Your task to perform on an android device: What's the weather going to be tomorrow? Image 0: 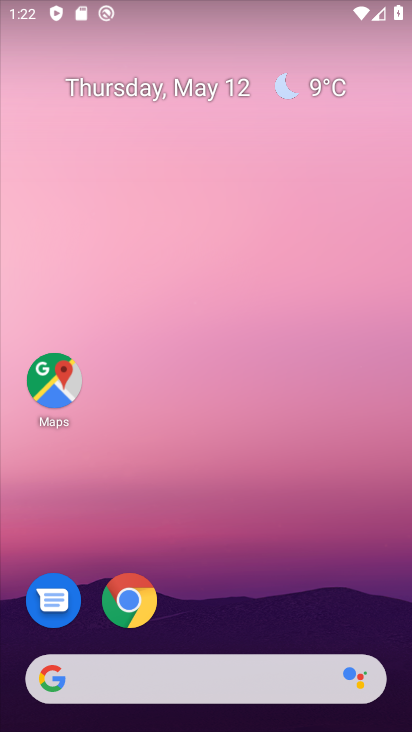
Step 0: click (118, 608)
Your task to perform on an android device: What's the weather going to be tomorrow? Image 1: 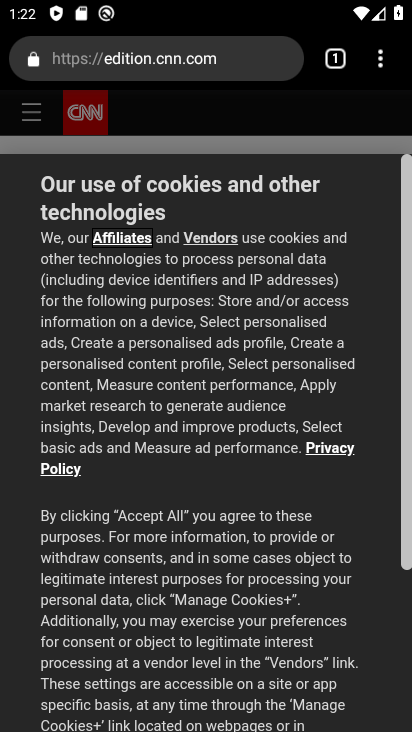
Step 1: click (234, 58)
Your task to perform on an android device: What's the weather going to be tomorrow? Image 2: 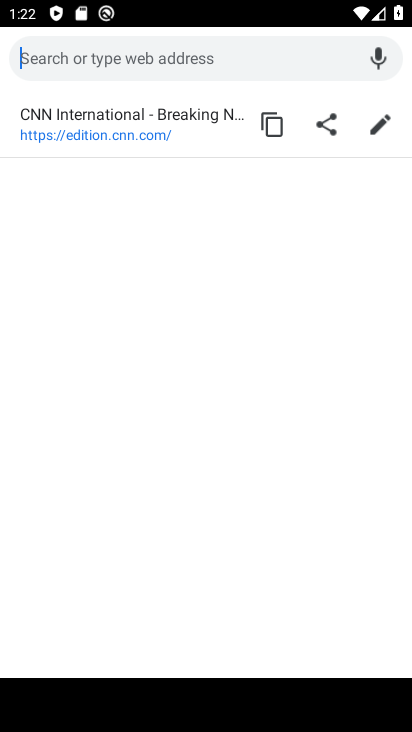
Step 2: type "What's the weather going to be tomorrow?"
Your task to perform on an android device: What's the weather going to be tomorrow? Image 3: 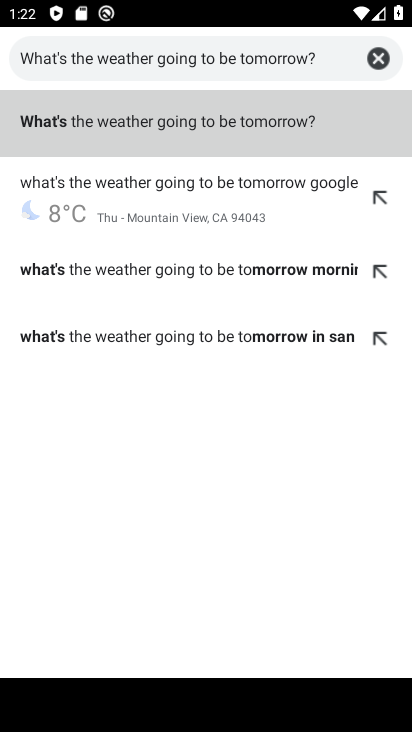
Step 3: click (130, 117)
Your task to perform on an android device: What's the weather going to be tomorrow? Image 4: 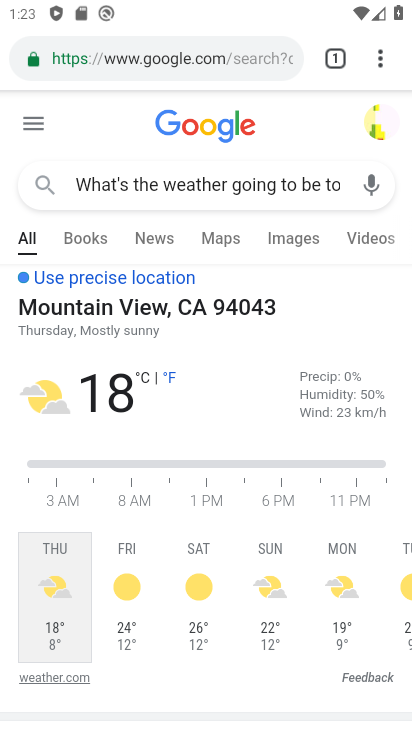
Step 4: task complete